Your task to perform on an android device: allow notifications from all sites in the chrome app Image 0: 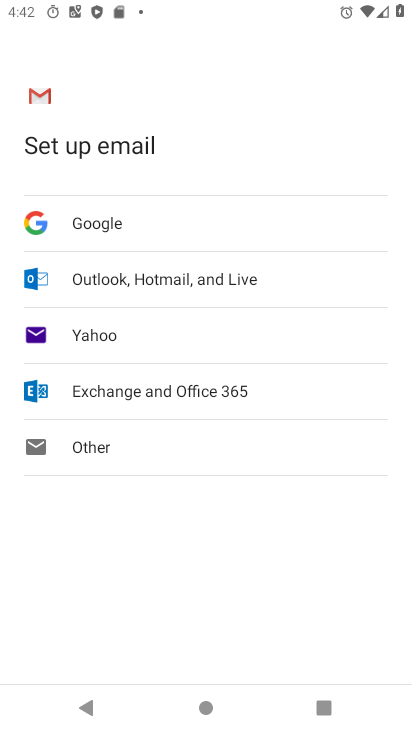
Step 0: press home button
Your task to perform on an android device: allow notifications from all sites in the chrome app Image 1: 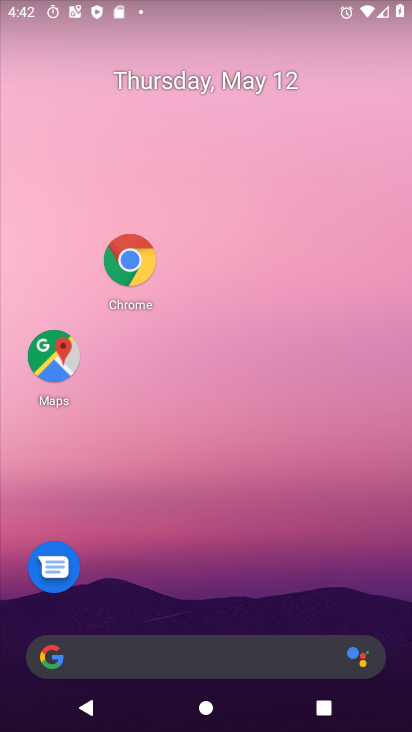
Step 1: click (128, 262)
Your task to perform on an android device: allow notifications from all sites in the chrome app Image 2: 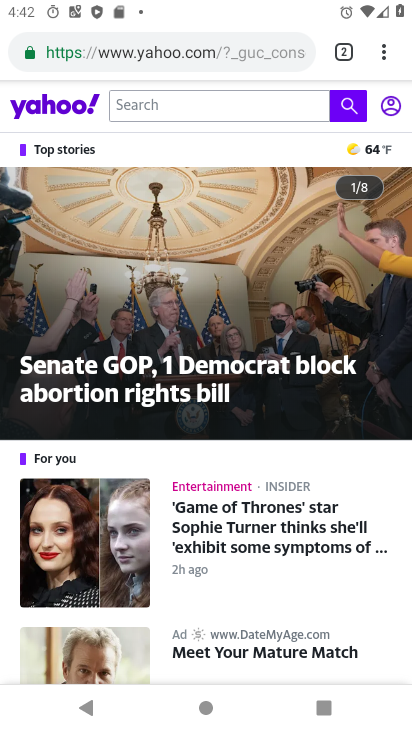
Step 2: click (381, 59)
Your task to perform on an android device: allow notifications from all sites in the chrome app Image 3: 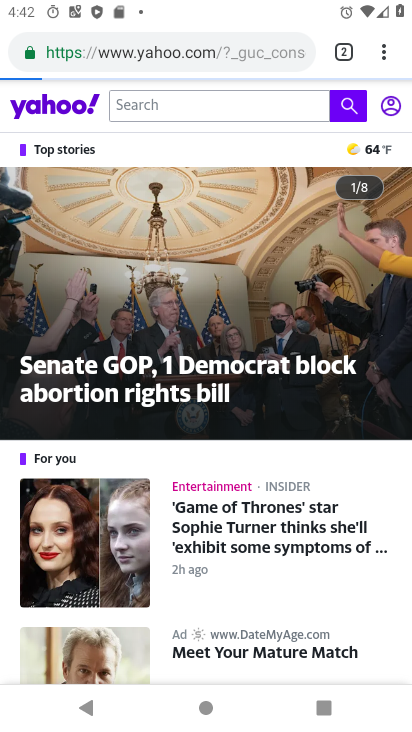
Step 3: click (382, 48)
Your task to perform on an android device: allow notifications from all sites in the chrome app Image 4: 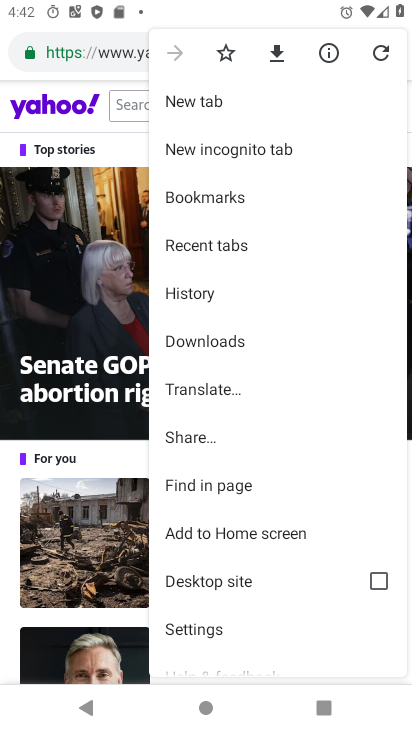
Step 4: click (196, 633)
Your task to perform on an android device: allow notifications from all sites in the chrome app Image 5: 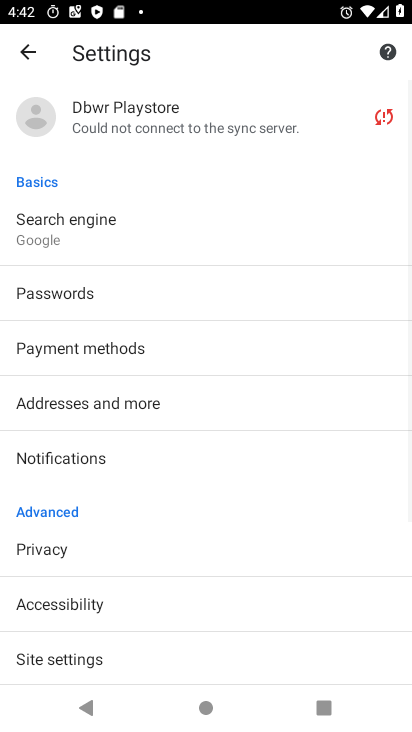
Step 5: click (34, 662)
Your task to perform on an android device: allow notifications from all sites in the chrome app Image 6: 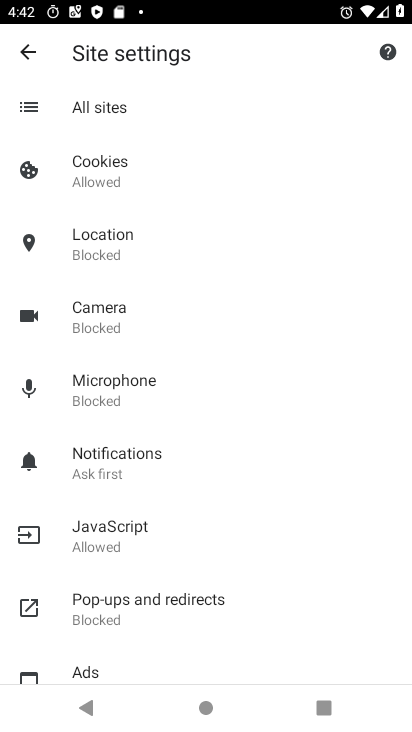
Step 6: click (82, 461)
Your task to perform on an android device: allow notifications from all sites in the chrome app Image 7: 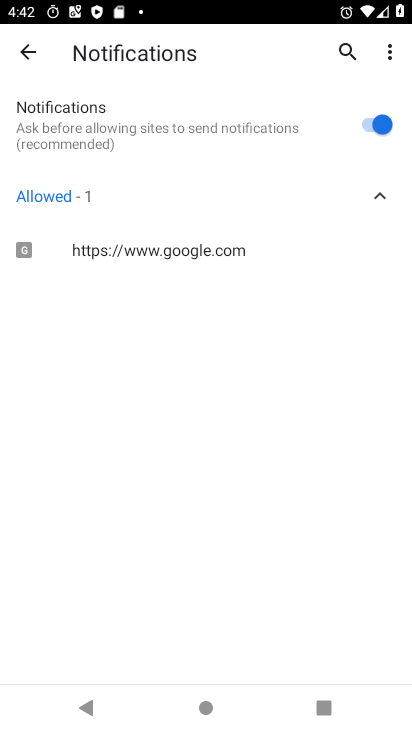
Step 7: task complete